Your task to perform on an android device: turn off data saver in the chrome app Image 0: 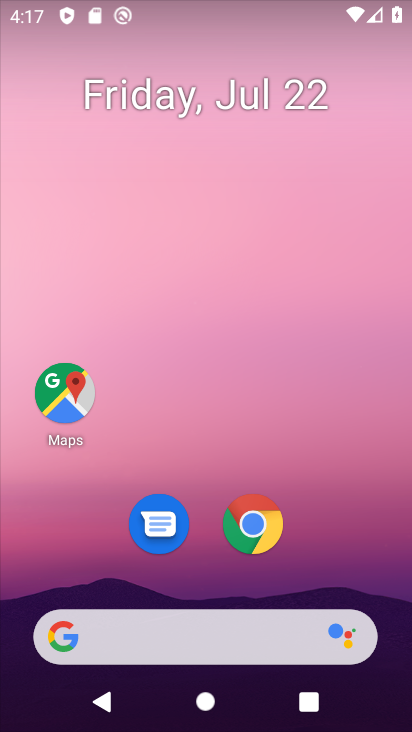
Step 0: click (267, 532)
Your task to perform on an android device: turn off data saver in the chrome app Image 1: 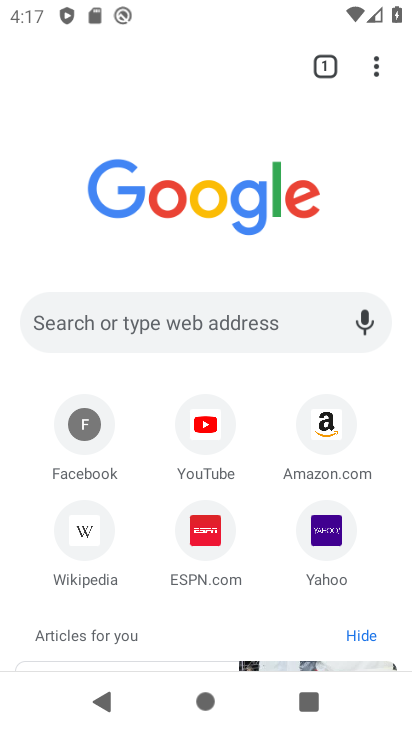
Step 1: click (378, 72)
Your task to perform on an android device: turn off data saver in the chrome app Image 2: 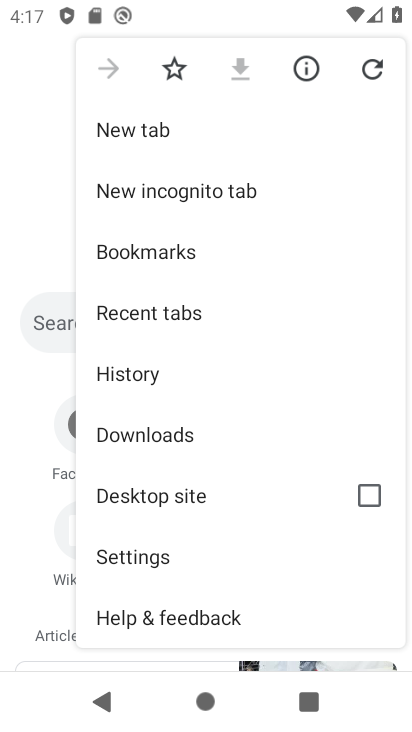
Step 2: click (165, 554)
Your task to perform on an android device: turn off data saver in the chrome app Image 3: 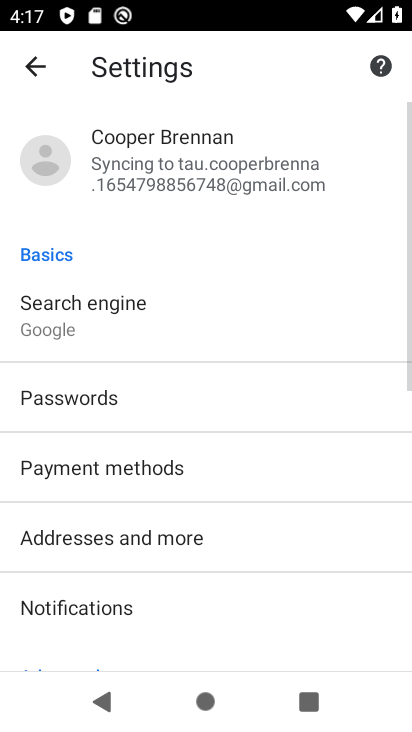
Step 3: drag from (229, 602) to (285, 123)
Your task to perform on an android device: turn off data saver in the chrome app Image 4: 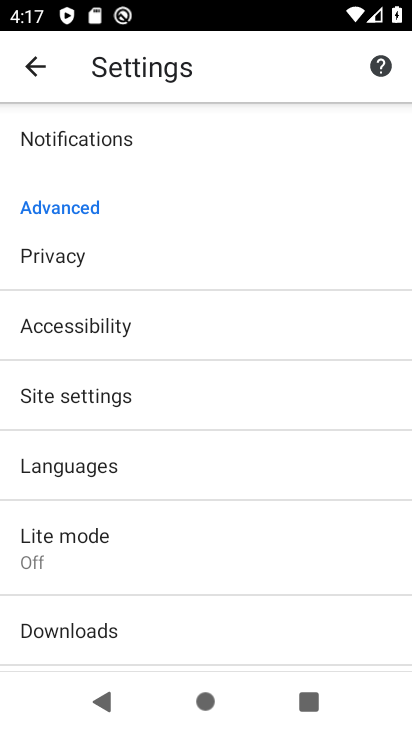
Step 4: click (105, 549)
Your task to perform on an android device: turn off data saver in the chrome app Image 5: 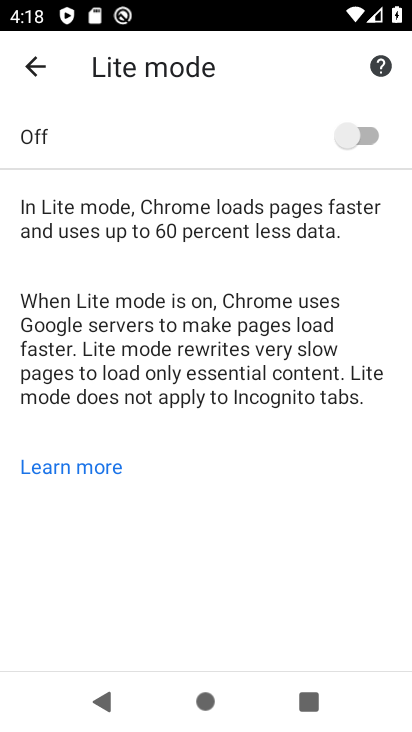
Step 5: task complete